Your task to perform on an android device: Open the web browser Image 0: 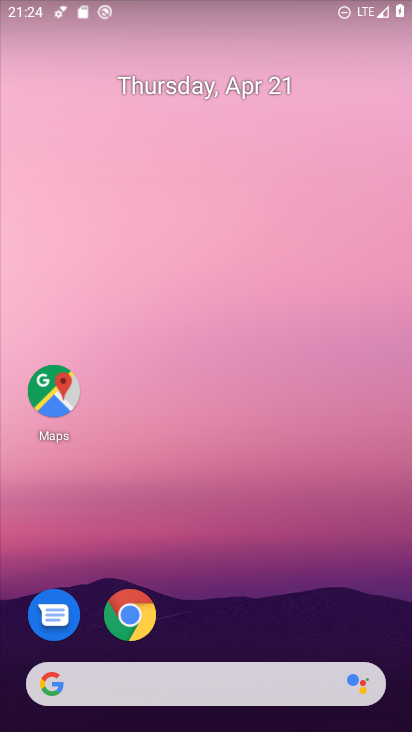
Step 0: drag from (196, 635) to (275, 24)
Your task to perform on an android device: Open the web browser Image 1: 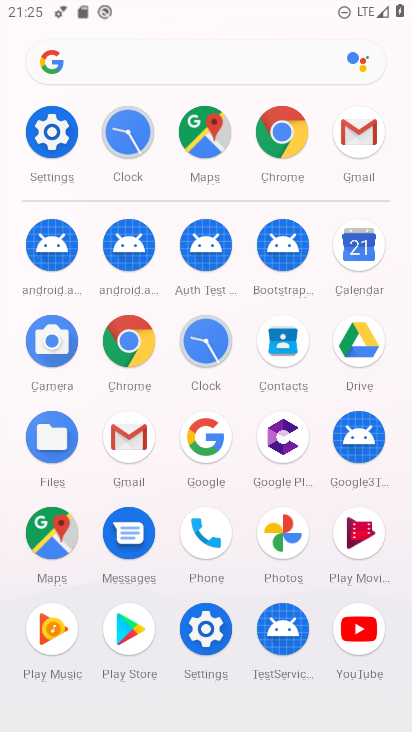
Step 1: click (287, 123)
Your task to perform on an android device: Open the web browser Image 2: 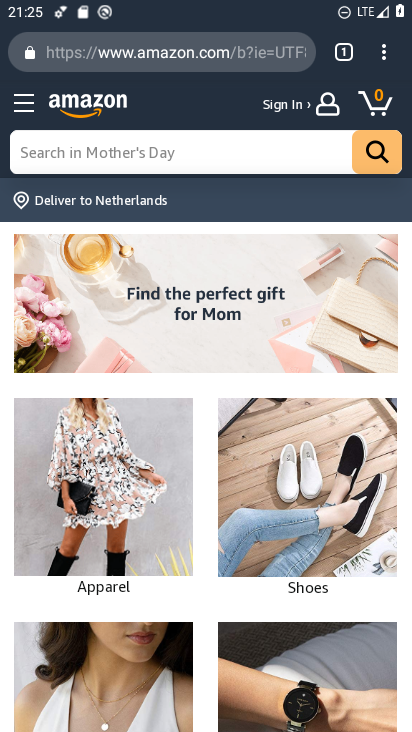
Step 2: task complete